Your task to perform on an android device: Open Yahoo.com Image 0: 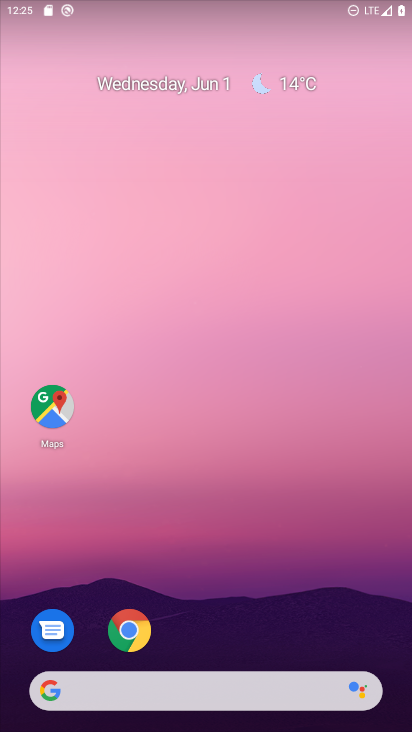
Step 0: click (129, 627)
Your task to perform on an android device: Open Yahoo.com Image 1: 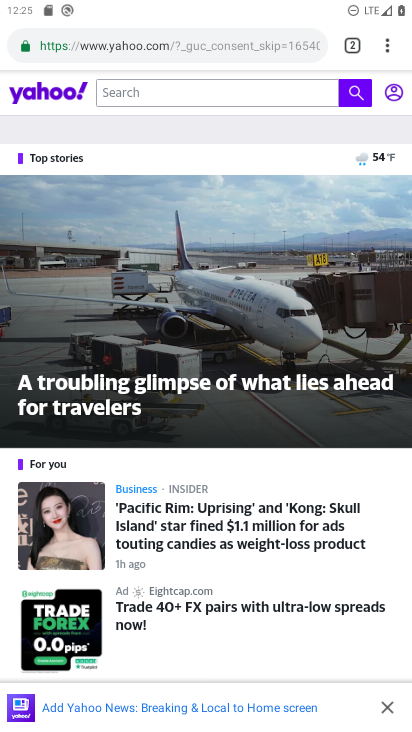
Step 1: task complete